Your task to perform on an android device: Open calendar and show me the third week of next month Image 0: 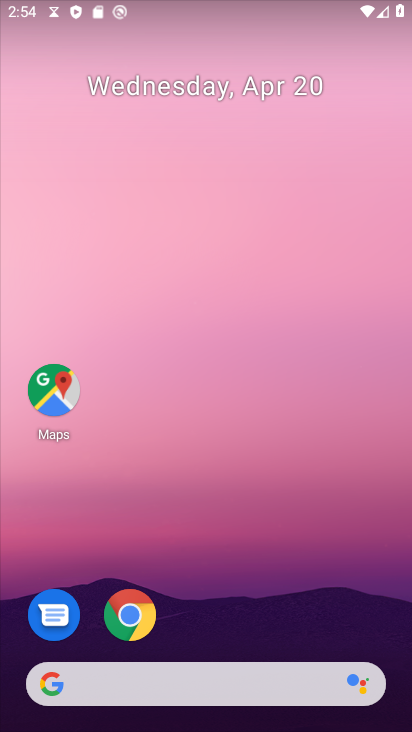
Step 0: drag from (173, 636) to (252, 177)
Your task to perform on an android device: Open calendar and show me the third week of next month Image 1: 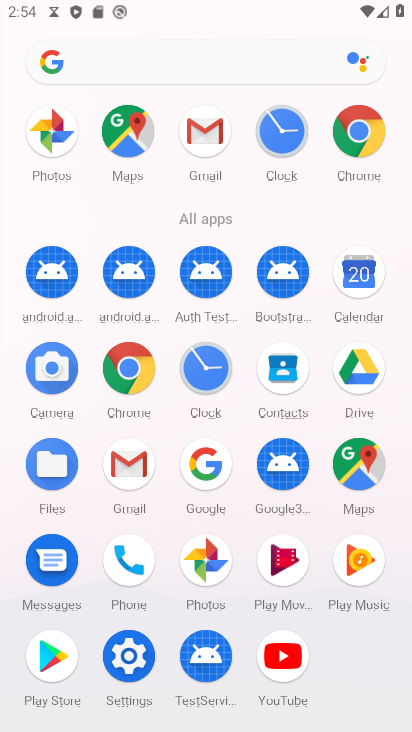
Step 1: click (364, 269)
Your task to perform on an android device: Open calendar and show me the third week of next month Image 2: 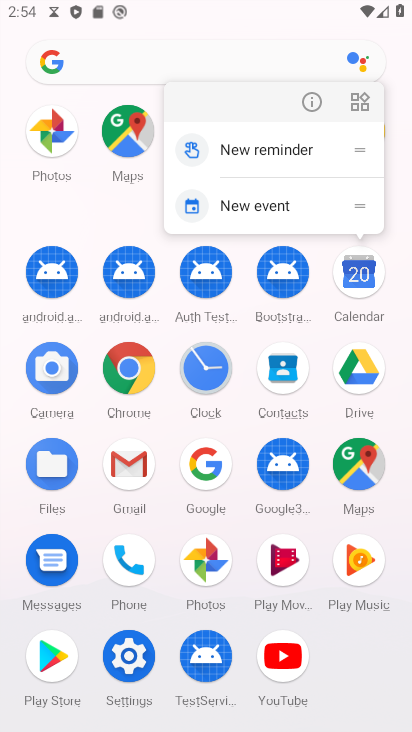
Step 2: click (314, 95)
Your task to perform on an android device: Open calendar and show me the third week of next month Image 3: 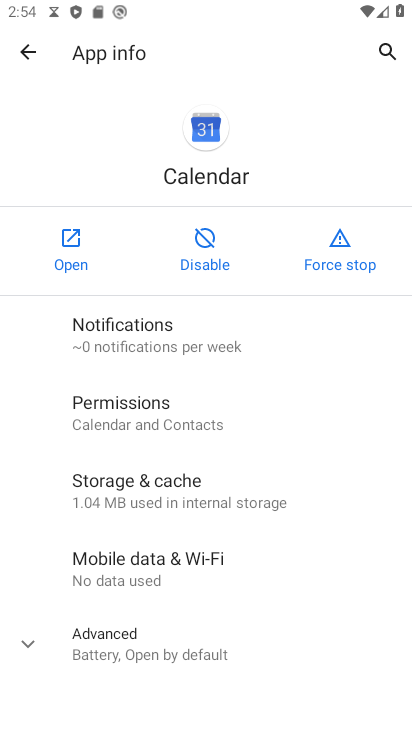
Step 3: click (76, 248)
Your task to perform on an android device: Open calendar and show me the third week of next month Image 4: 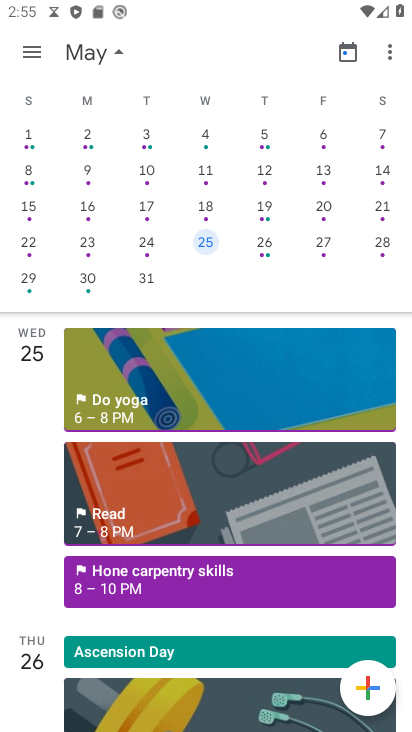
Step 4: click (206, 207)
Your task to perform on an android device: Open calendar and show me the third week of next month Image 5: 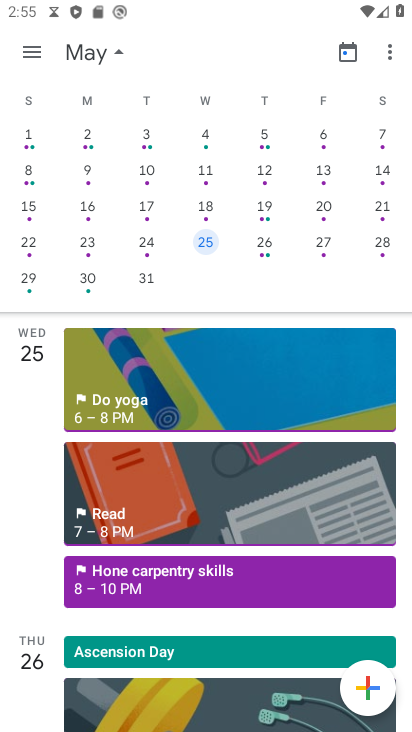
Step 5: click (255, 212)
Your task to perform on an android device: Open calendar and show me the third week of next month Image 6: 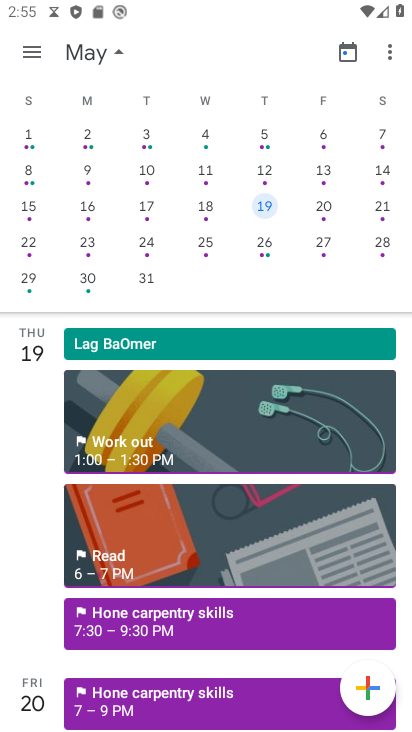
Step 6: click (262, 210)
Your task to perform on an android device: Open calendar and show me the third week of next month Image 7: 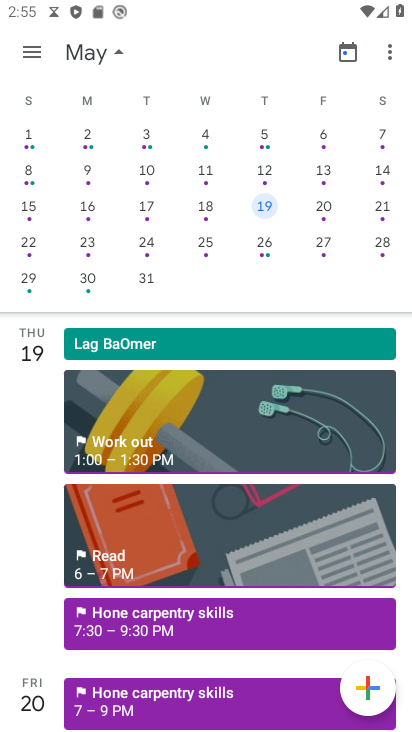
Step 7: task complete